Your task to perform on an android device: open app "DuckDuckGo Privacy Browser" (install if not already installed) Image 0: 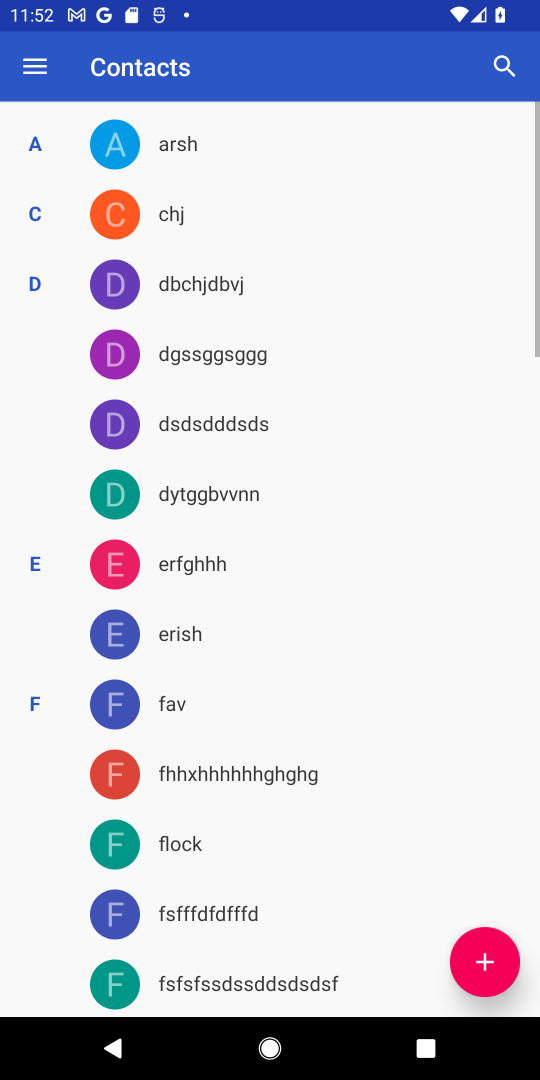
Step 0: press home button
Your task to perform on an android device: open app "DuckDuckGo Privacy Browser" (install if not already installed) Image 1: 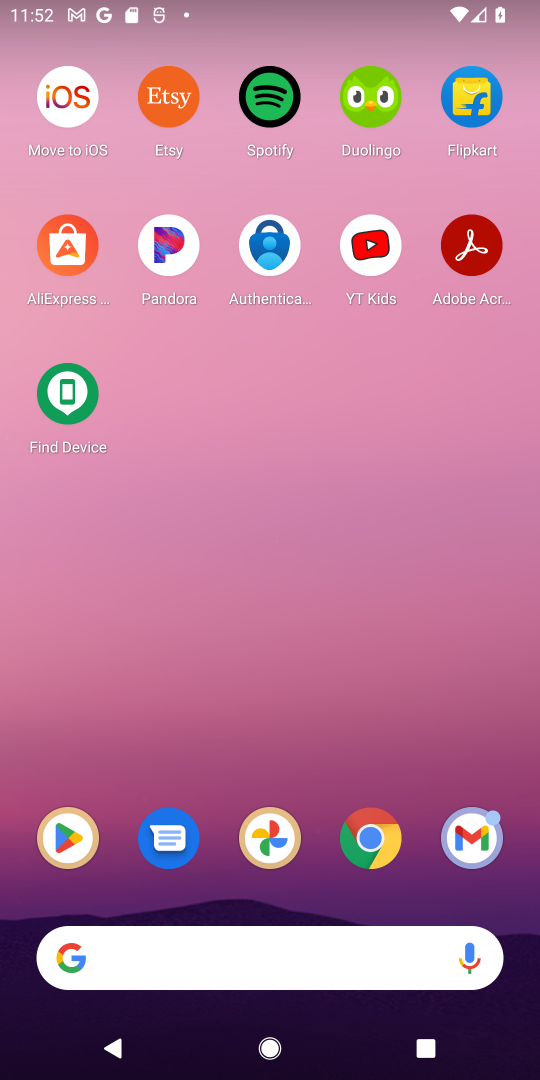
Step 1: click (59, 856)
Your task to perform on an android device: open app "DuckDuckGo Privacy Browser" (install if not already installed) Image 2: 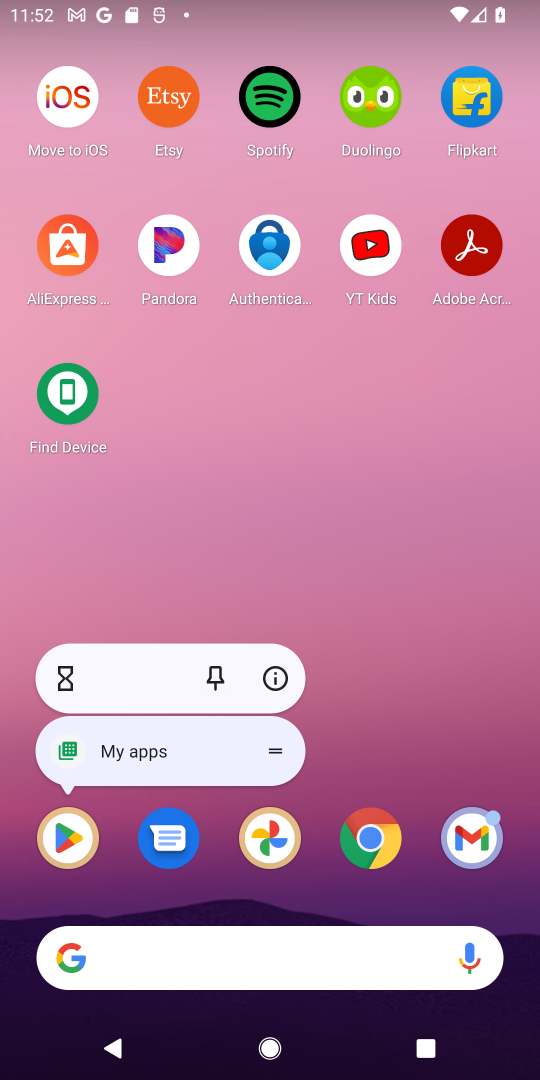
Step 2: click (59, 856)
Your task to perform on an android device: open app "DuckDuckGo Privacy Browser" (install if not already installed) Image 3: 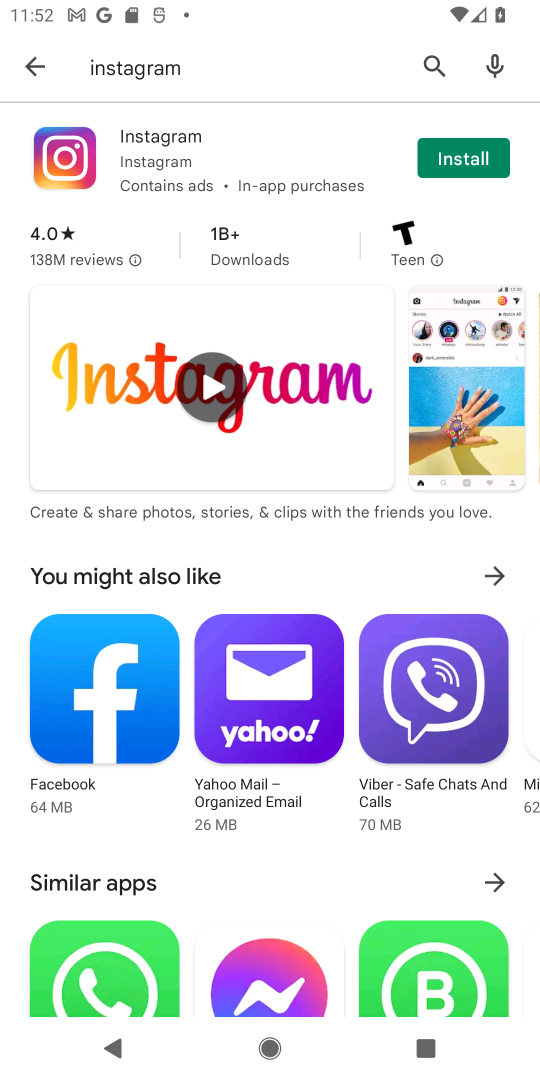
Step 3: click (428, 78)
Your task to perform on an android device: open app "DuckDuckGo Privacy Browser" (install if not already installed) Image 4: 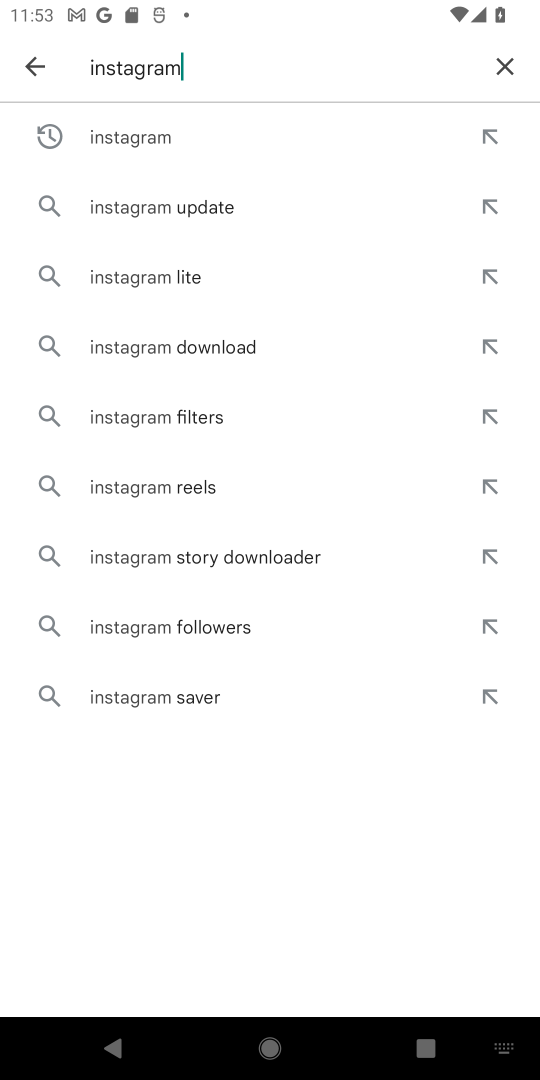
Step 4: click (509, 63)
Your task to perform on an android device: open app "DuckDuckGo Privacy Browser" (install if not already installed) Image 5: 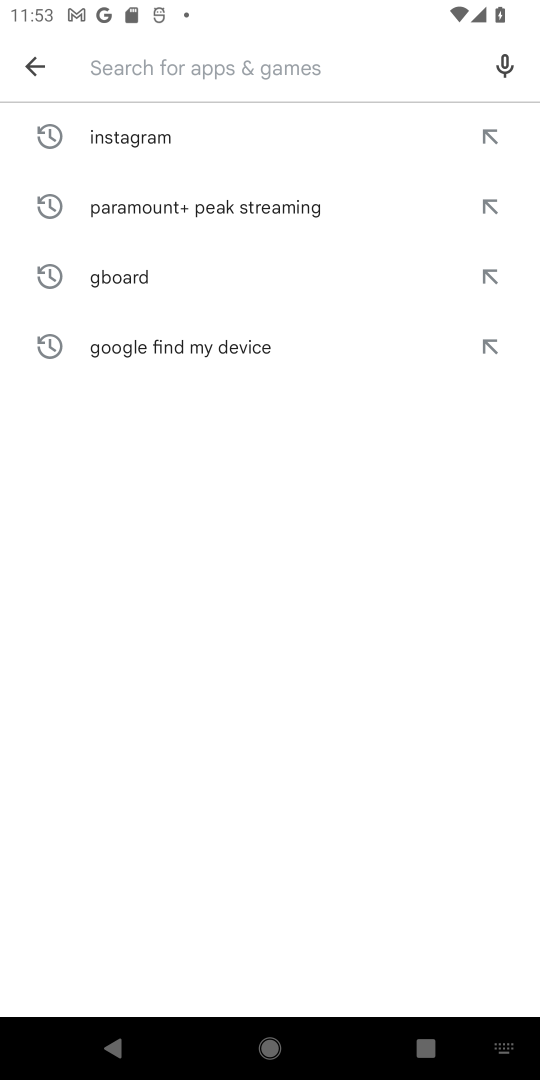
Step 5: type "DuckDuckGo Privacy Browser"
Your task to perform on an android device: open app "DuckDuckGo Privacy Browser" (install if not already installed) Image 6: 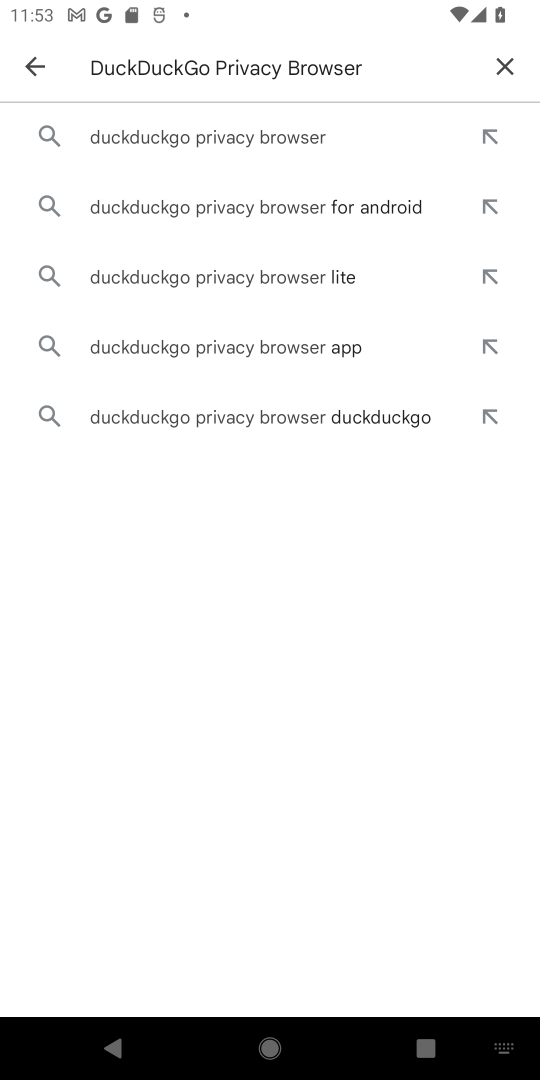
Step 6: click (215, 149)
Your task to perform on an android device: open app "DuckDuckGo Privacy Browser" (install if not already installed) Image 7: 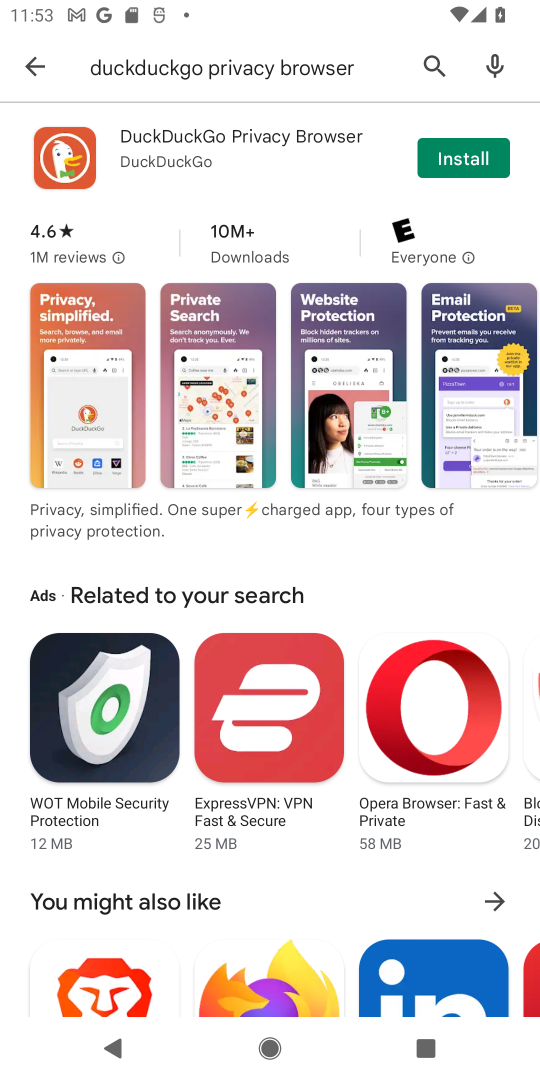
Step 7: click (484, 161)
Your task to perform on an android device: open app "DuckDuckGo Privacy Browser" (install if not already installed) Image 8: 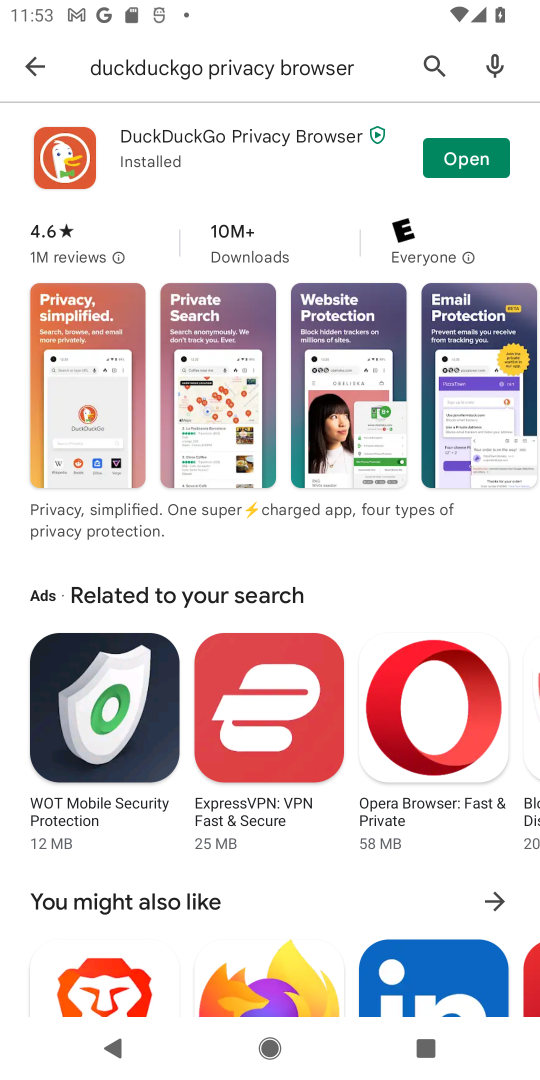
Step 8: click (453, 159)
Your task to perform on an android device: open app "DuckDuckGo Privacy Browser" (install if not already installed) Image 9: 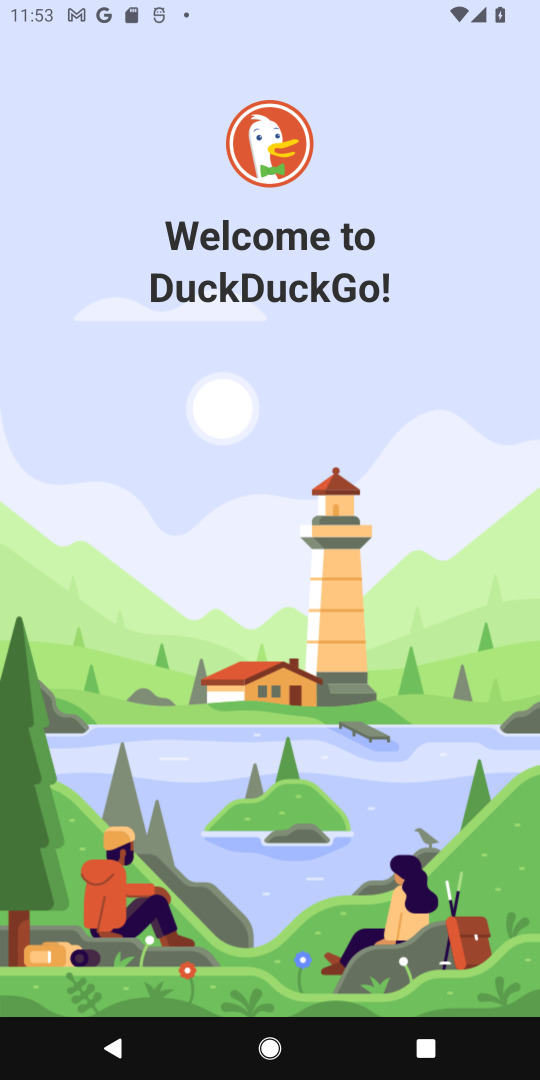
Step 9: task complete